Your task to perform on an android device: What's the weather today? Image 0: 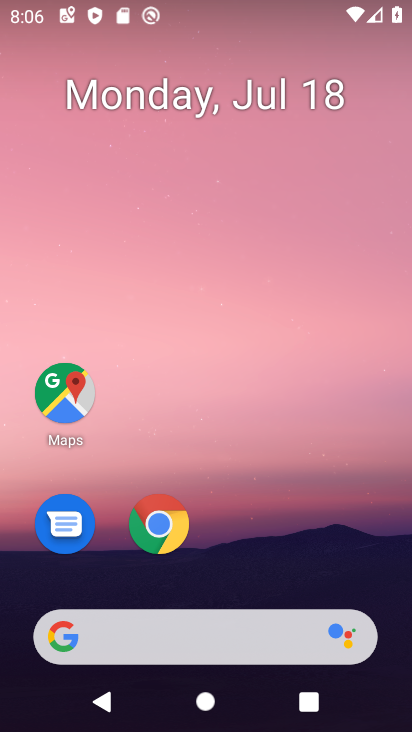
Step 0: click (249, 642)
Your task to perform on an android device: What's the weather today? Image 1: 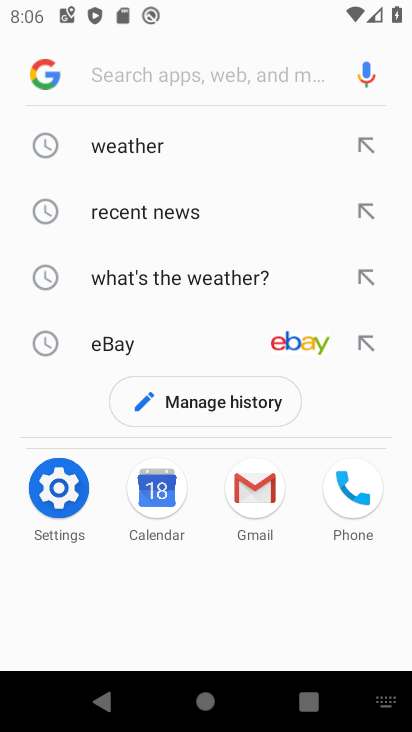
Step 1: click (150, 149)
Your task to perform on an android device: What's the weather today? Image 2: 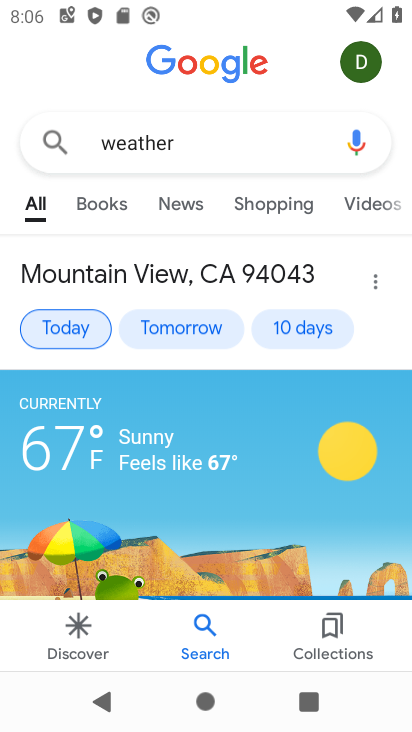
Step 2: click (68, 325)
Your task to perform on an android device: What's the weather today? Image 3: 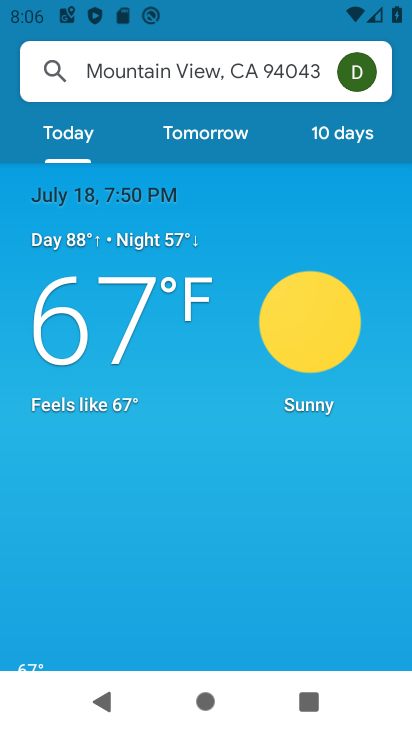
Step 3: task complete